Your task to perform on an android device: Open calendar and show me the first week of next month Image 0: 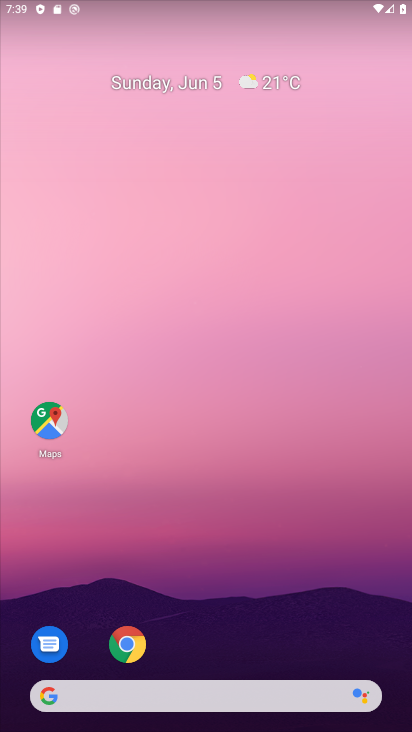
Step 0: drag from (347, 618) to (240, 3)
Your task to perform on an android device: Open calendar and show me the first week of next month Image 1: 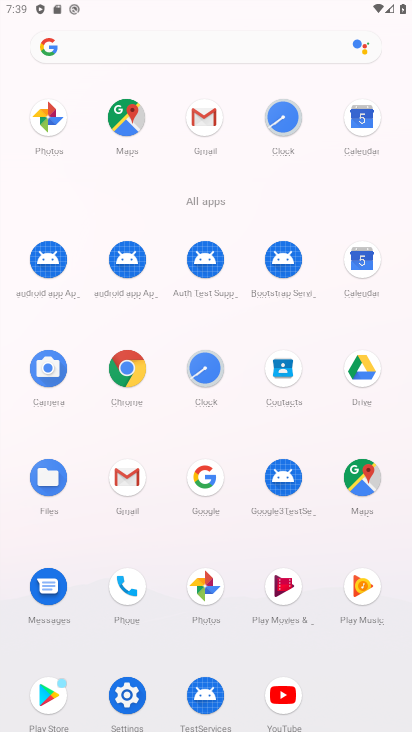
Step 1: click (352, 269)
Your task to perform on an android device: Open calendar and show me the first week of next month Image 2: 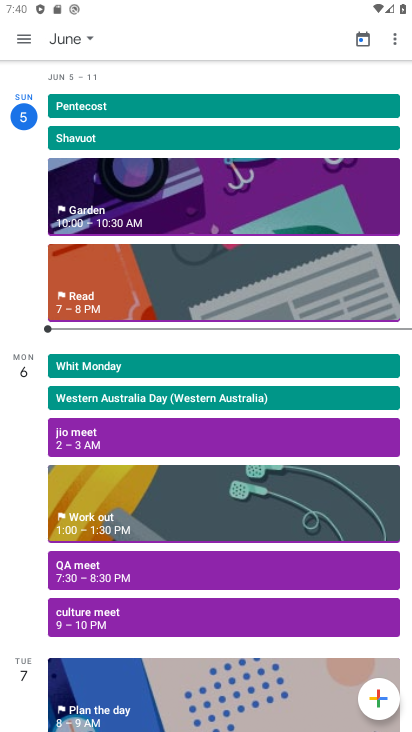
Step 2: task complete